Your task to perform on an android device: open chrome and create a bookmark for the current page Image 0: 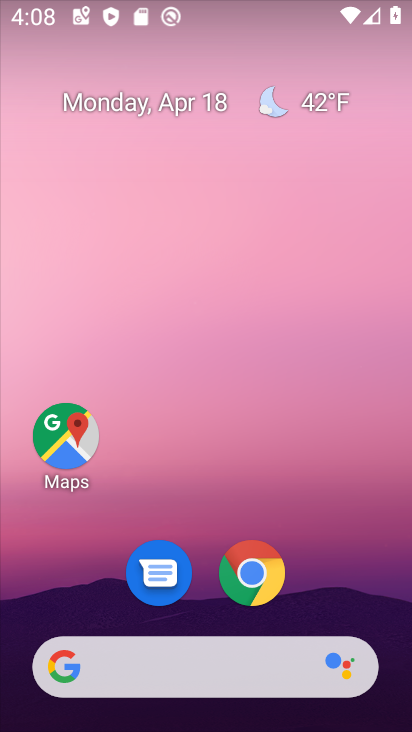
Step 0: click (253, 580)
Your task to perform on an android device: open chrome and create a bookmark for the current page Image 1: 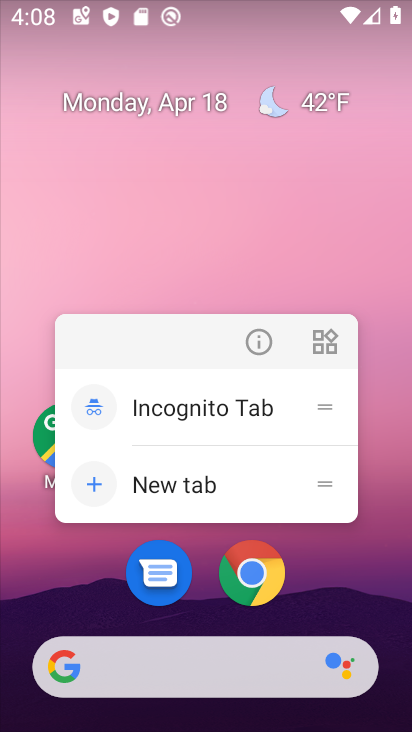
Step 1: click (252, 580)
Your task to perform on an android device: open chrome and create a bookmark for the current page Image 2: 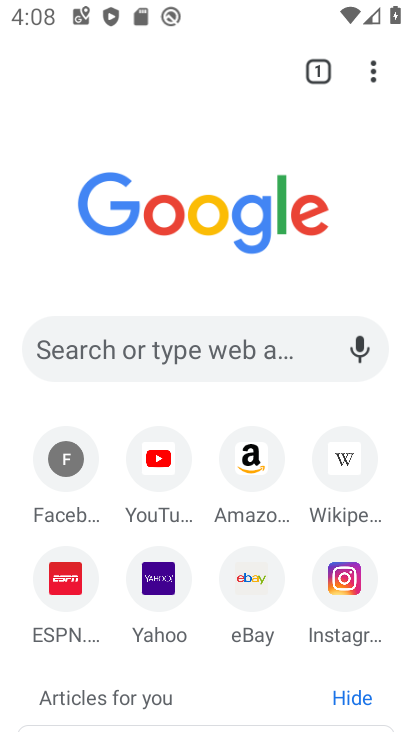
Step 2: click (195, 347)
Your task to perform on an android device: open chrome and create a bookmark for the current page Image 3: 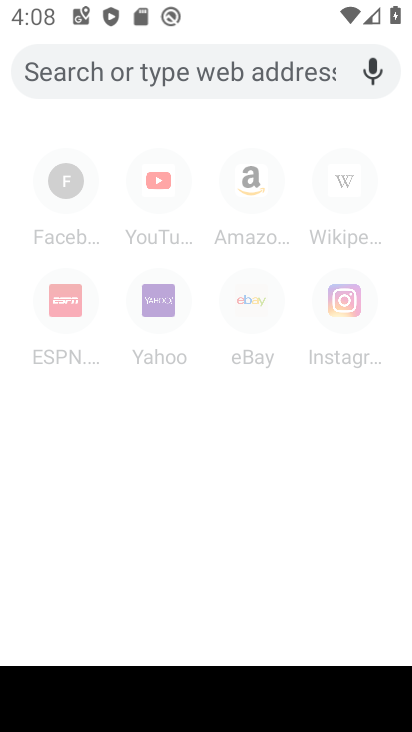
Step 3: type "wikipedia"
Your task to perform on an android device: open chrome and create a bookmark for the current page Image 4: 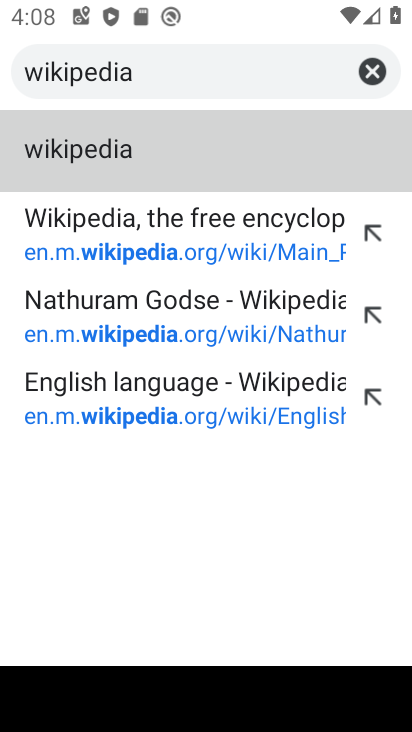
Step 4: click (129, 135)
Your task to perform on an android device: open chrome and create a bookmark for the current page Image 5: 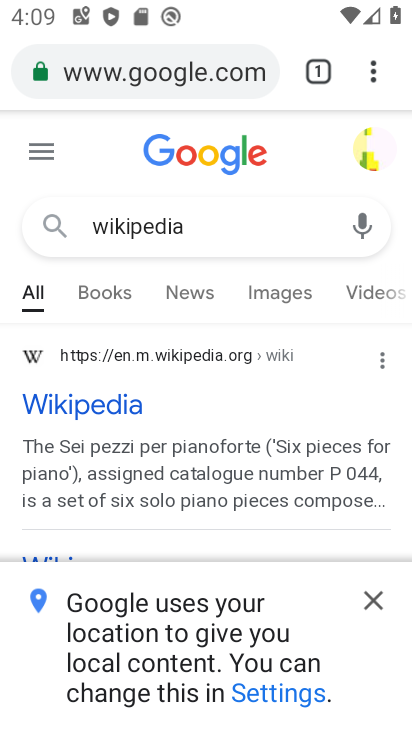
Step 5: click (121, 412)
Your task to perform on an android device: open chrome and create a bookmark for the current page Image 6: 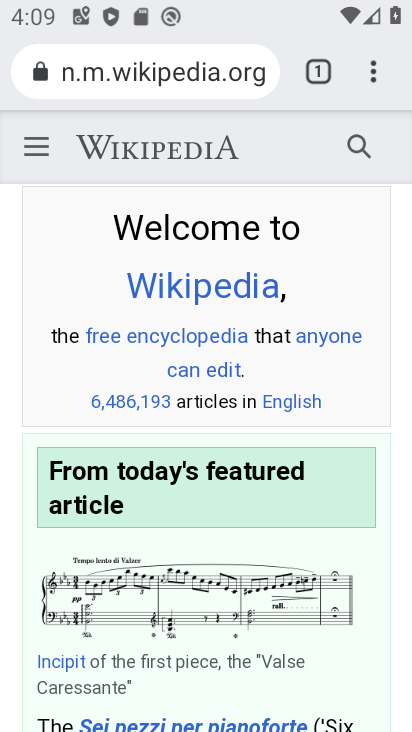
Step 6: click (376, 69)
Your task to perform on an android device: open chrome and create a bookmark for the current page Image 7: 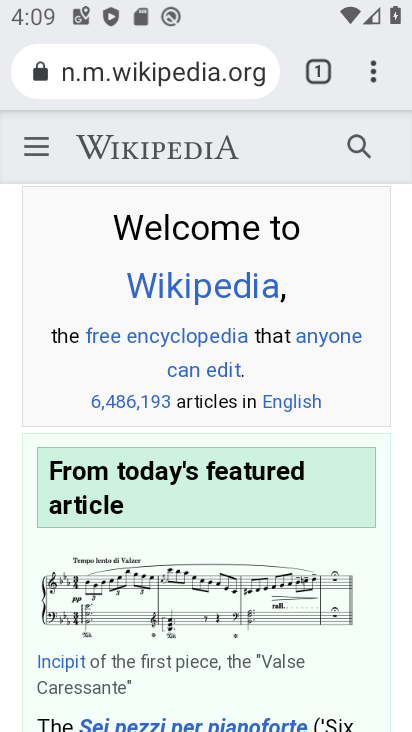
Step 7: click (376, 69)
Your task to perform on an android device: open chrome and create a bookmark for the current page Image 8: 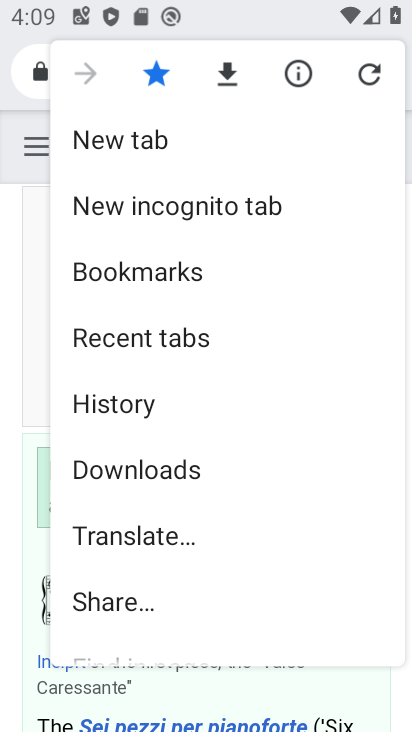
Step 8: click (158, 77)
Your task to perform on an android device: open chrome and create a bookmark for the current page Image 9: 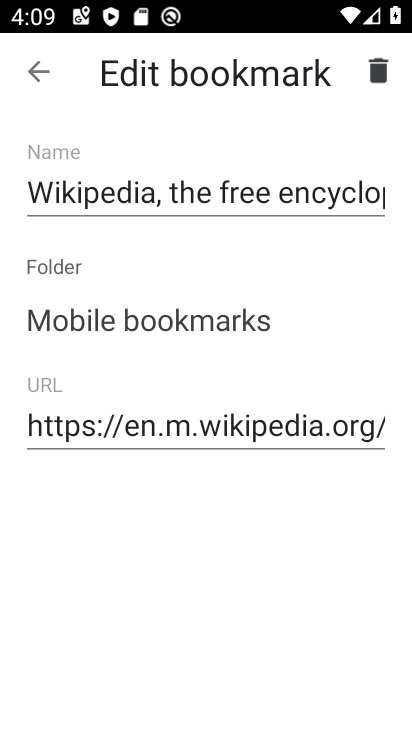
Step 9: click (373, 64)
Your task to perform on an android device: open chrome and create a bookmark for the current page Image 10: 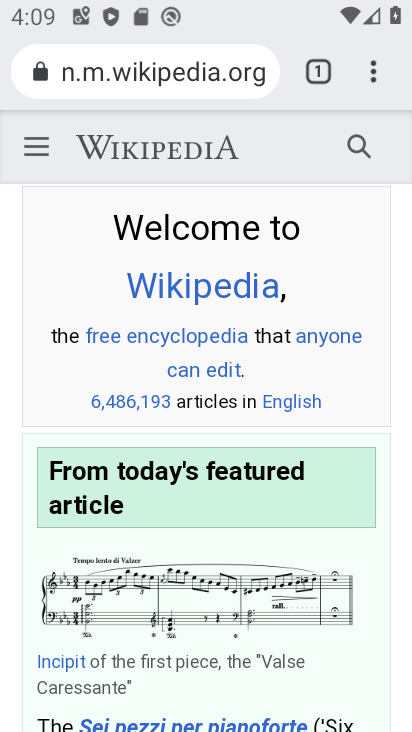
Step 10: click (379, 66)
Your task to perform on an android device: open chrome and create a bookmark for the current page Image 11: 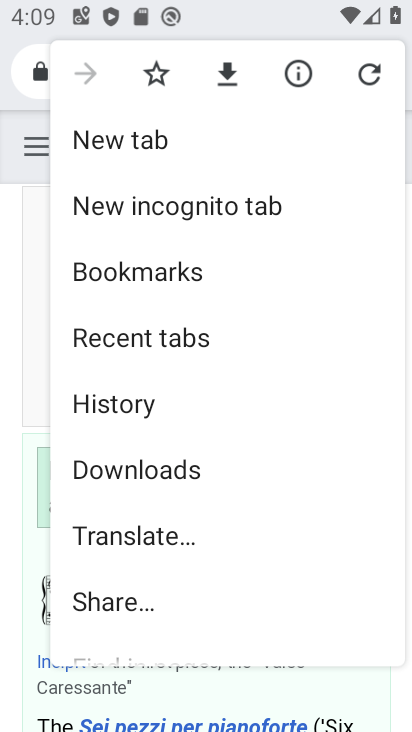
Step 11: click (151, 71)
Your task to perform on an android device: open chrome and create a bookmark for the current page Image 12: 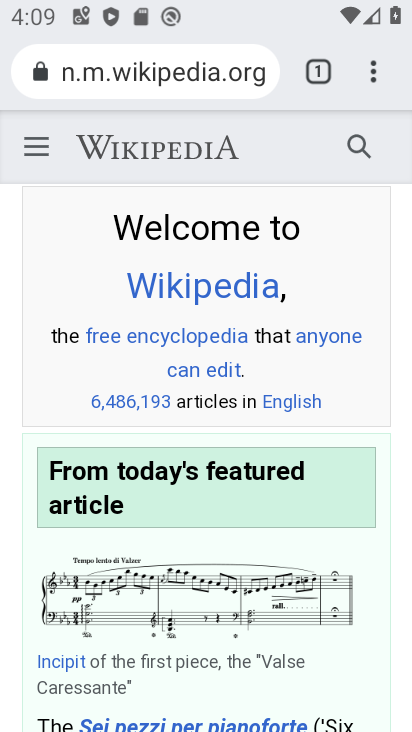
Step 12: task complete